Your task to perform on an android device: Turn off the flashlight Image 0: 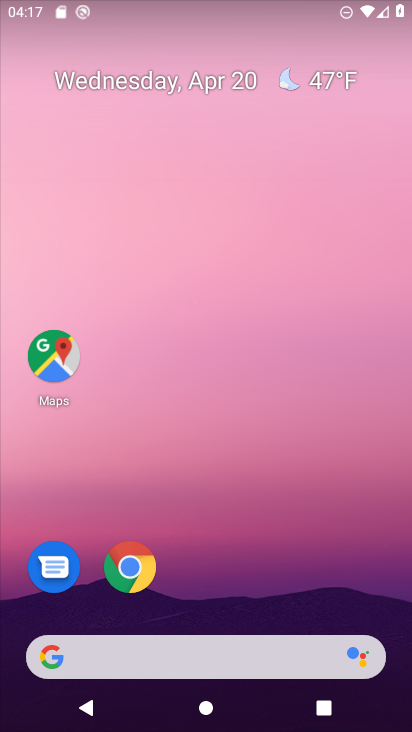
Step 0: drag from (293, 11) to (261, 637)
Your task to perform on an android device: Turn off the flashlight Image 1: 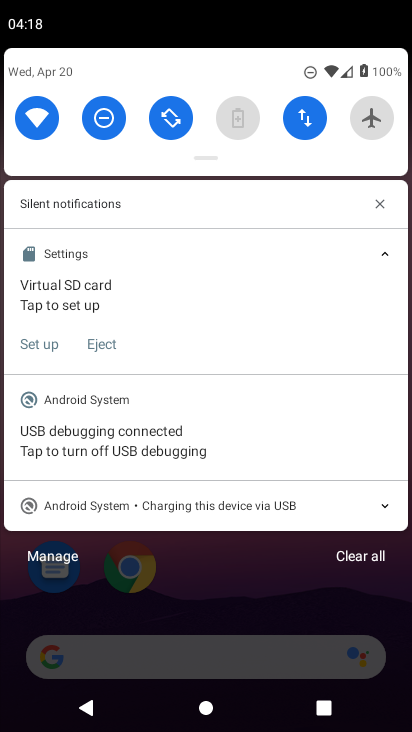
Step 1: drag from (255, 69) to (215, 722)
Your task to perform on an android device: Turn off the flashlight Image 2: 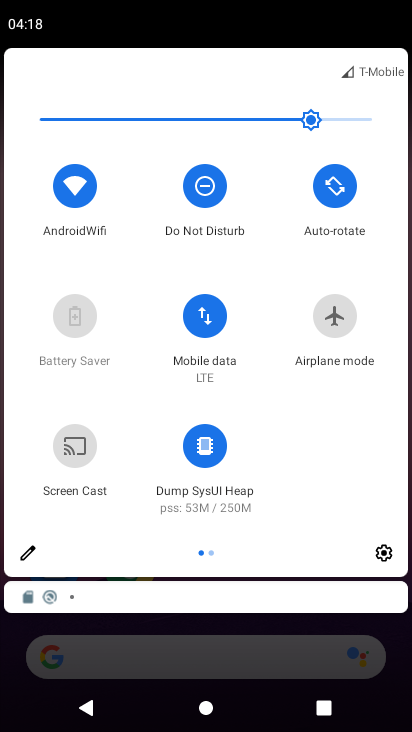
Step 2: click (382, 469)
Your task to perform on an android device: Turn off the flashlight Image 3: 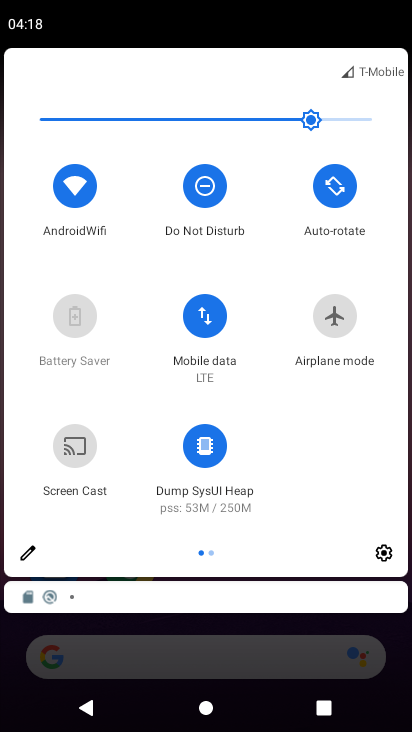
Step 3: click (379, 560)
Your task to perform on an android device: Turn off the flashlight Image 4: 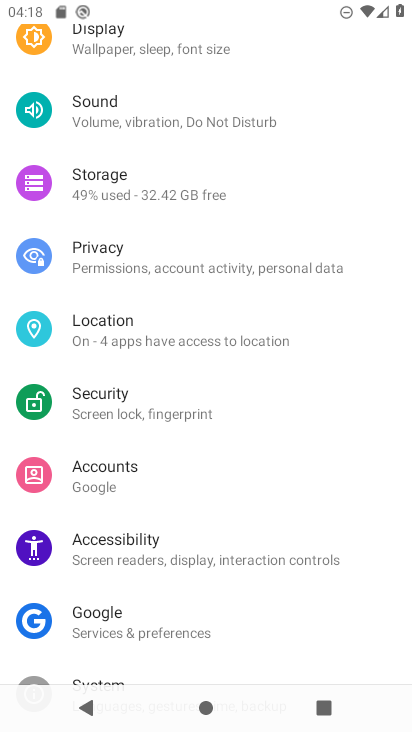
Step 4: task complete